Your task to perform on an android device: change your default location settings in chrome Image 0: 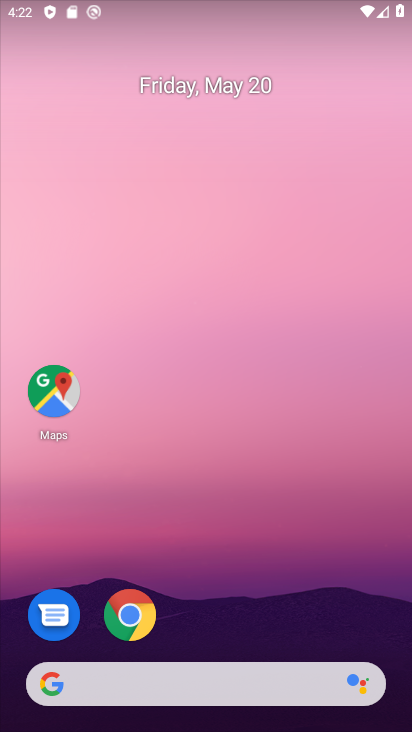
Step 0: click (138, 628)
Your task to perform on an android device: change your default location settings in chrome Image 1: 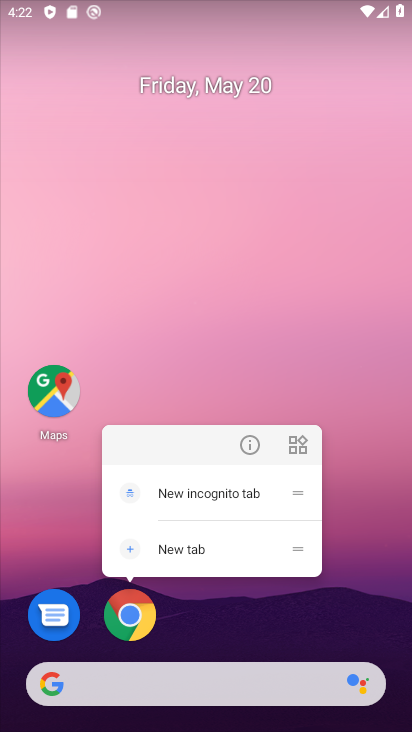
Step 1: click (138, 627)
Your task to perform on an android device: change your default location settings in chrome Image 2: 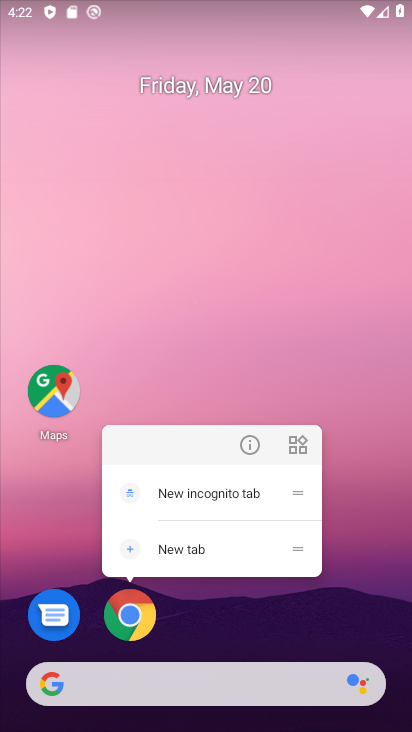
Step 2: click (124, 626)
Your task to perform on an android device: change your default location settings in chrome Image 3: 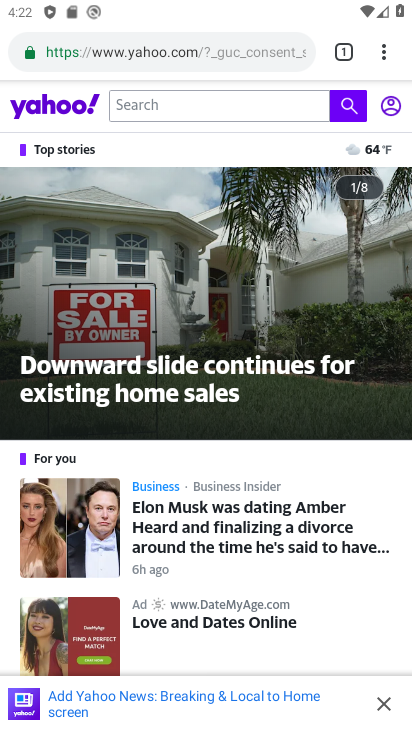
Step 3: click (389, 49)
Your task to perform on an android device: change your default location settings in chrome Image 4: 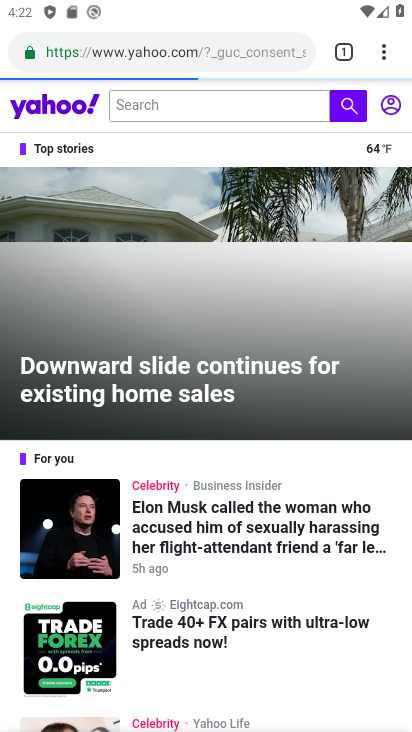
Step 4: click (386, 56)
Your task to perform on an android device: change your default location settings in chrome Image 5: 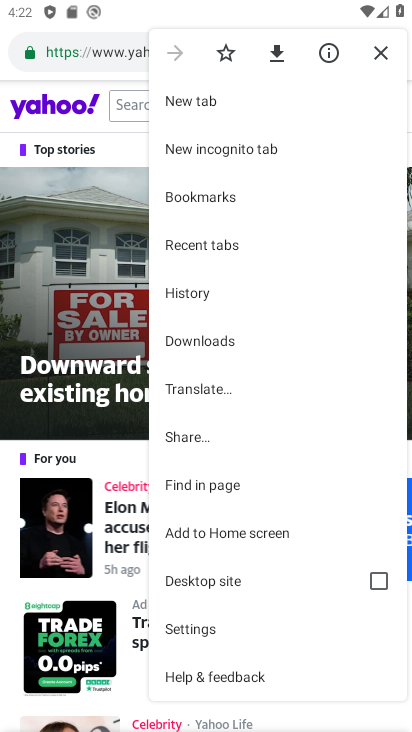
Step 5: drag from (235, 548) to (252, 224)
Your task to perform on an android device: change your default location settings in chrome Image 6: 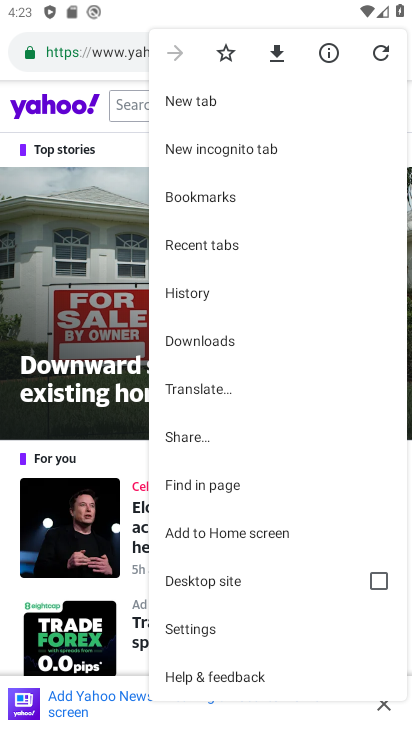
Step 6: click (216, 626)
Your task to perform on an android device: change your default location settings in chrome Image 7: 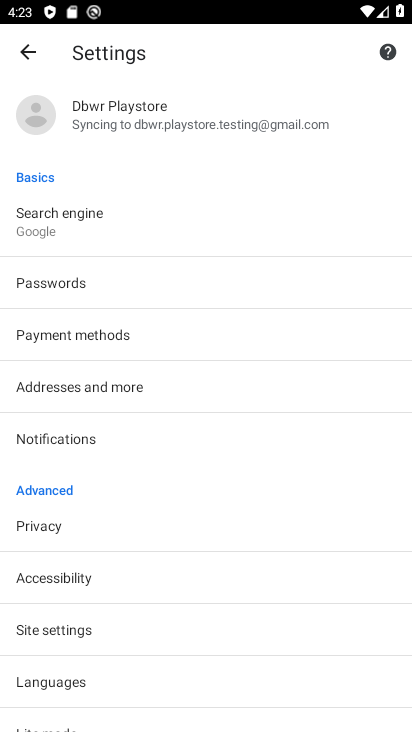
Step 7: click (99, 628)
Your task to perform on an android device: change your default location settings in chrome Image 8: 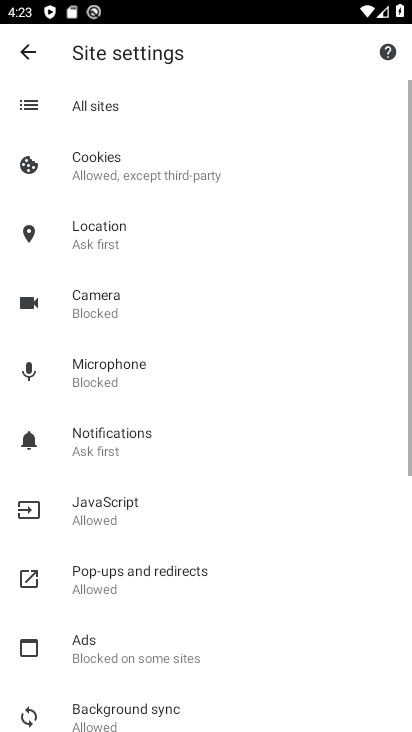
Step 8: click (179, 240)
Your task to perform on an android device: change your default location settings in chrome Image 9: 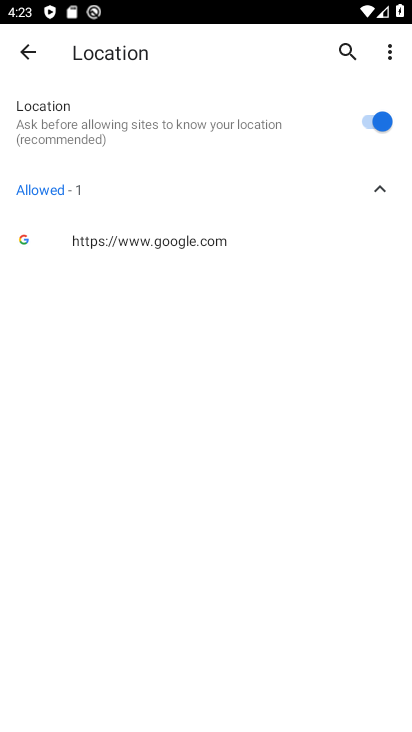
Step 9: click (374, 122)
Your task to perform on an android device: change your default location settings in chrome Image 10: 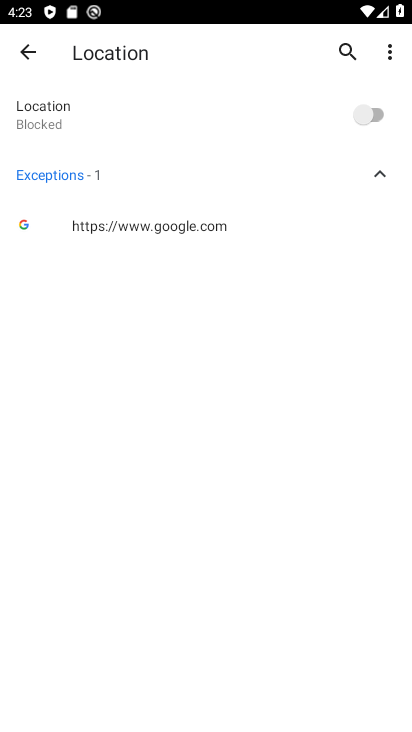
Step 10: task complete